Your task to perform on an android device: Open Youtube and go to "Your channel" Image 0: 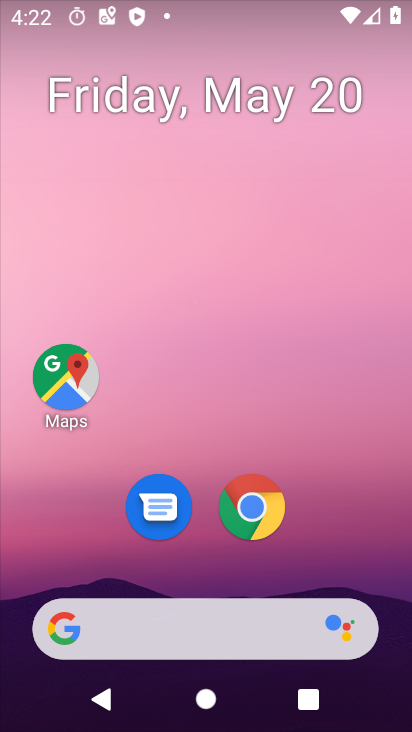
Step 0: drag from (335, 543) to (212, 77)
Your task to perform on an android device: Open Youtube and go to "Your channel" Image 1: 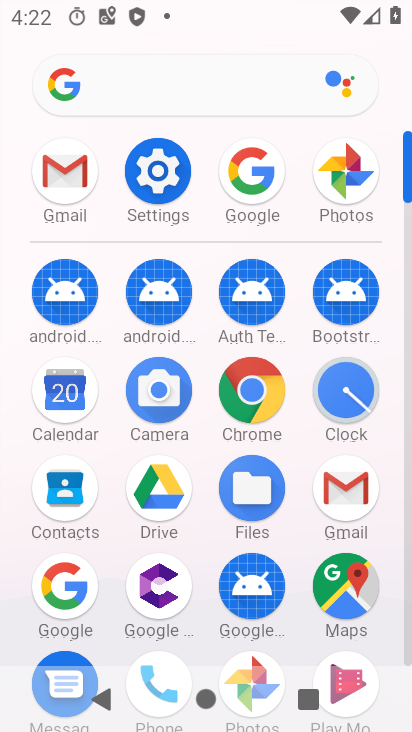
Step 1: drag from (285, 526) to (271, 237)
Your task to perform on an android device: Open Youtube and go to "Your channel" Image 2: 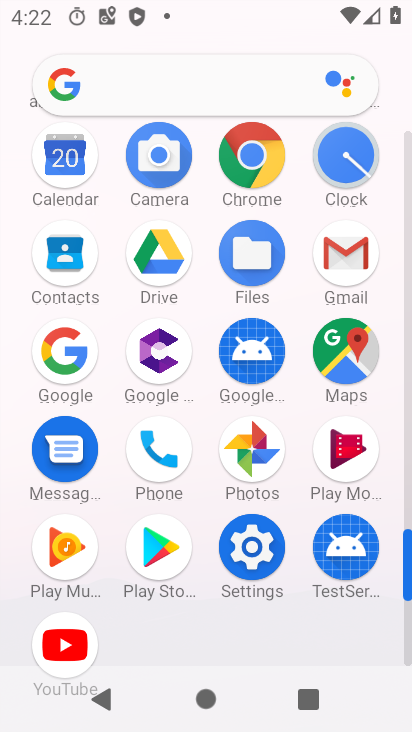
Step 2: click (63, 643)
Your task to perform on an android device: Open Youtube and go to "Your channel" Image 3: 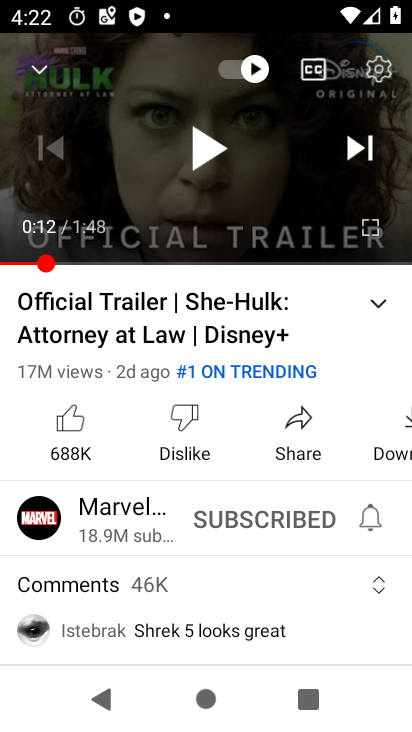
Step 3: press back button
Your task to perform on an android device: Open Youtube and go to "Your channel" Image 4: 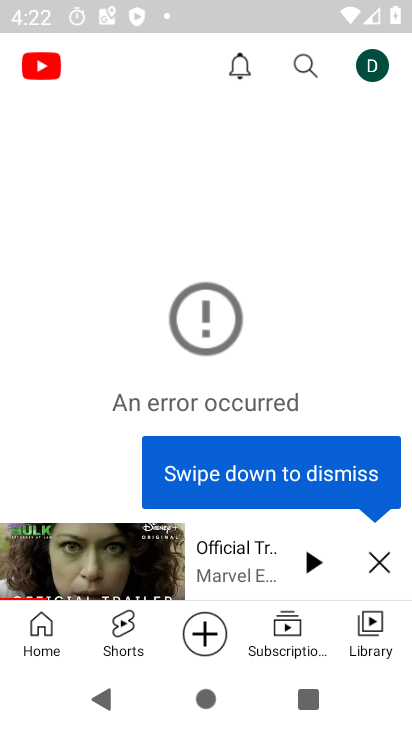
Step 4: click (378, 556)
Your task to perform on an android device: Open Youtube and go to "Your channel" Image 5: 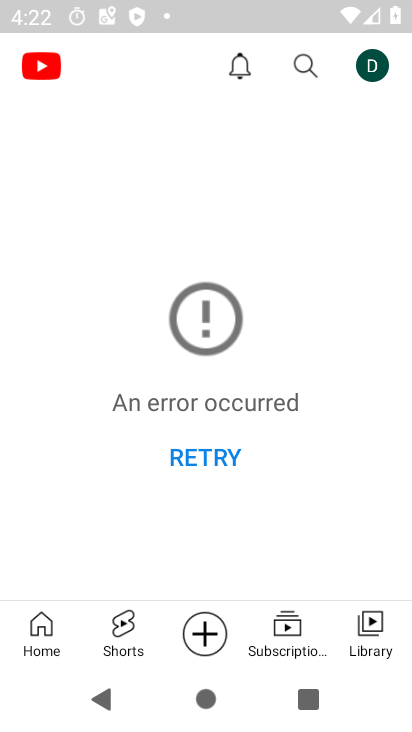
Step 5: click (376, 72)
Your task to perform on an android device: Open Youtube and go to "Your channel" Image 6: 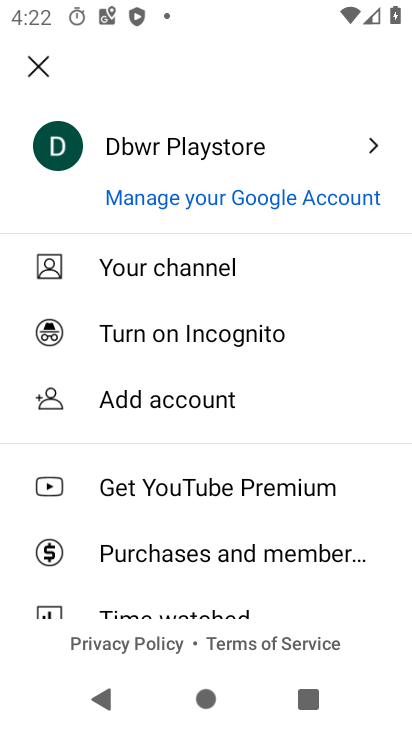
Step 6: click (197, 278)
Your task to perform on an android device: Open Youtube and go to "Your channel" Image 7: 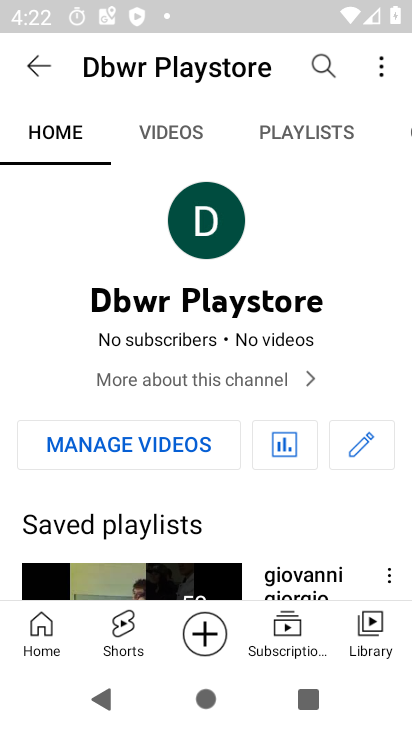
Step 7: task complete